Your task to perform on an android device: show emergency info Image 0: 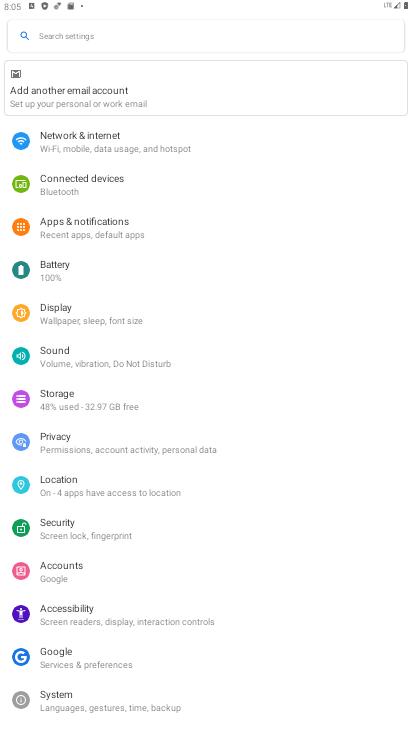
Step 0: drag from (108, 656) to (124, 387)
Your task to perform on an android device: show emergency info Image 1: 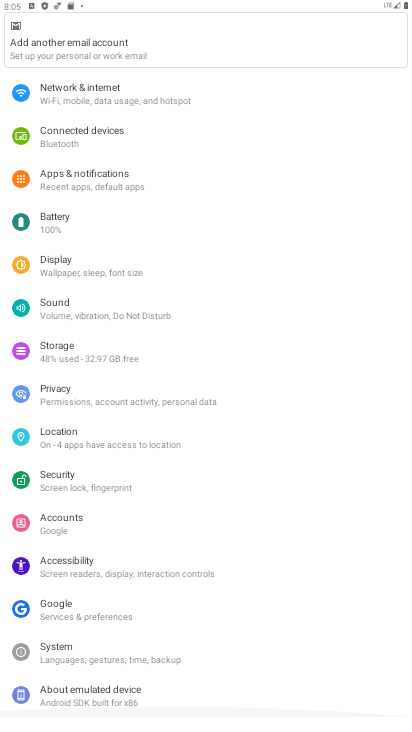
Step 1: click (115, 697)
Your task to perform on an android device: show emergency info Image 2: 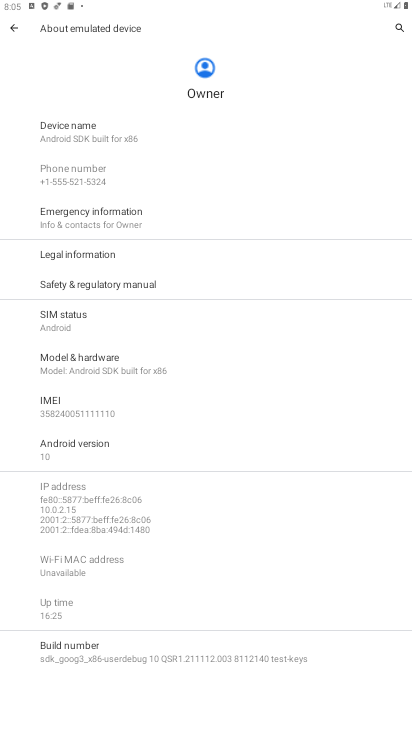
Step 2: click (135, 218)
Your task to perform on an android device: show emergency info Image 3: 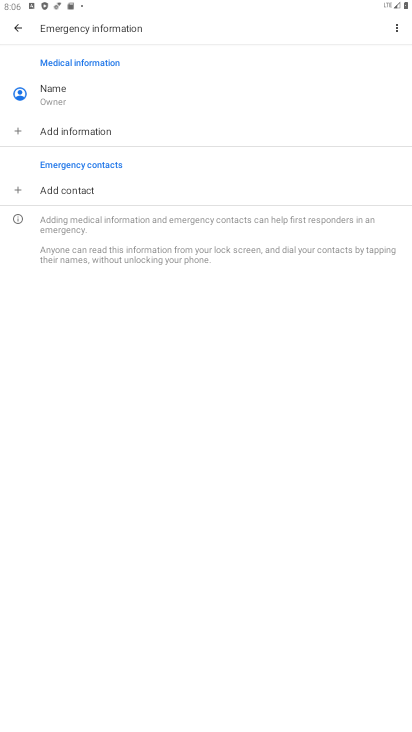
Step 3: task complete